Your task to perform on an android device: Open calendar and show me the first week of next month Image 0: 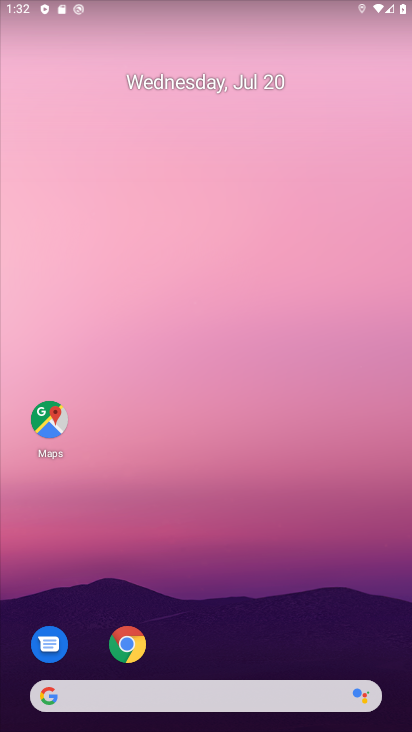
Step 0: drag from (346, 581) to (298, 90)
Your task to perform on an android device: Open calendar and show me the first week of next month Image 1: 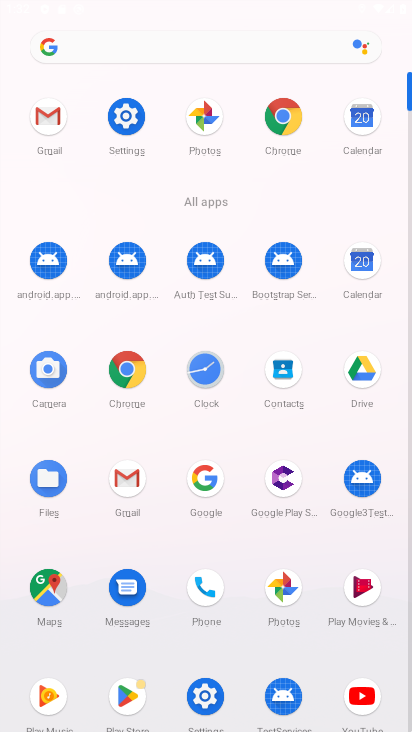
Step 1: click (362, 254)
Your task to perform on an android device: Open calendar and show me the first week of next month Image 2: 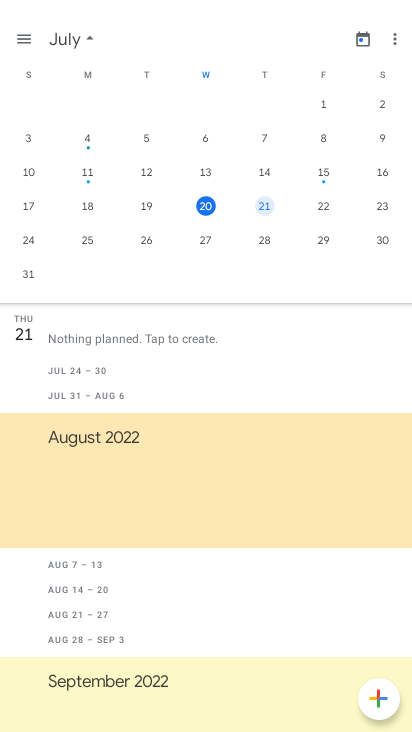
Step 2: task complete